Your task to perform on an android device: Play the last video I watched on Youtube Image 0: 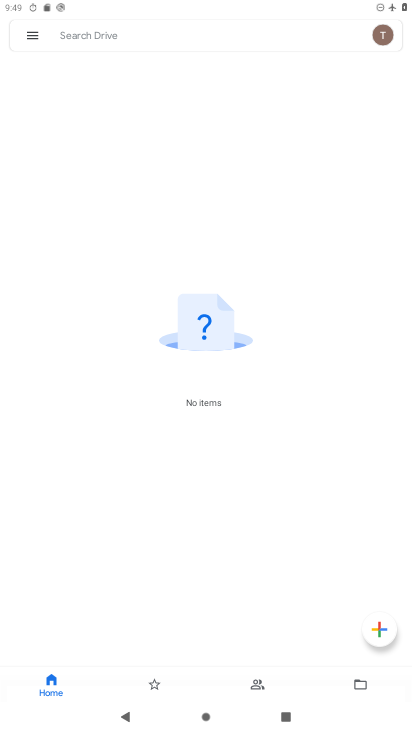
Step 0: drag from (166, 7) to (177, 534)
Your task to perform on an android device: Play the last video I watched on Youtube Image 1: 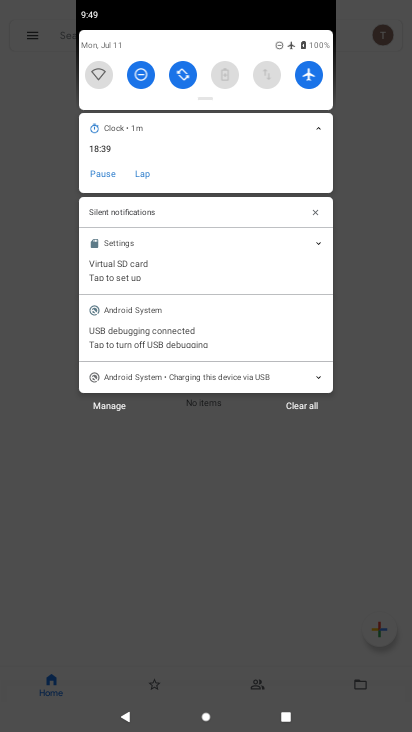
Step 1: press home button
Your task to perform on an android device: Play the last video I watched on Youtube Image 2: 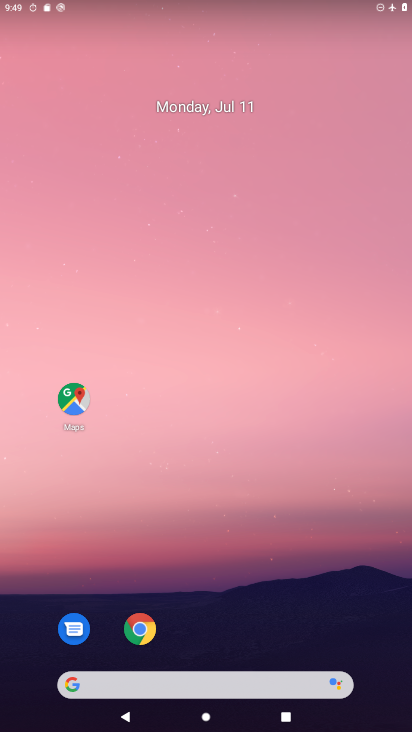
Step 2: drag from (221, 648) to (270, 112)
Your task to perform on an android device: Play the last video I watched on Youtube Image 3: 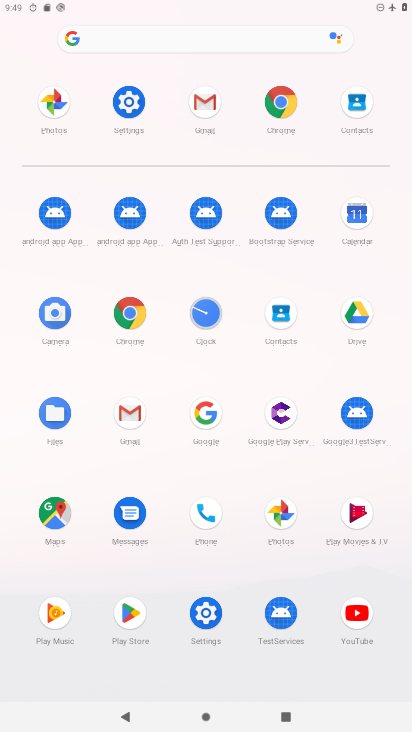
Step 3: click (366, 611)
Your task to perform on an android device: Play the last video I watched on Youtube Image 4: 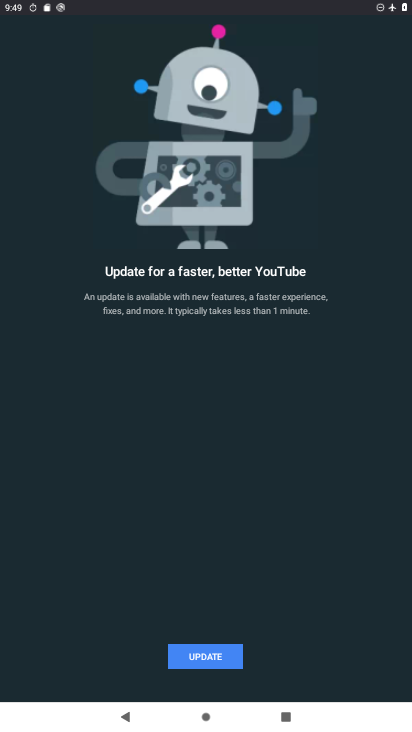
Step 4: click (235, 653)
Your task to perform on an android device: Play the last video I watched on Youtube Image 5: 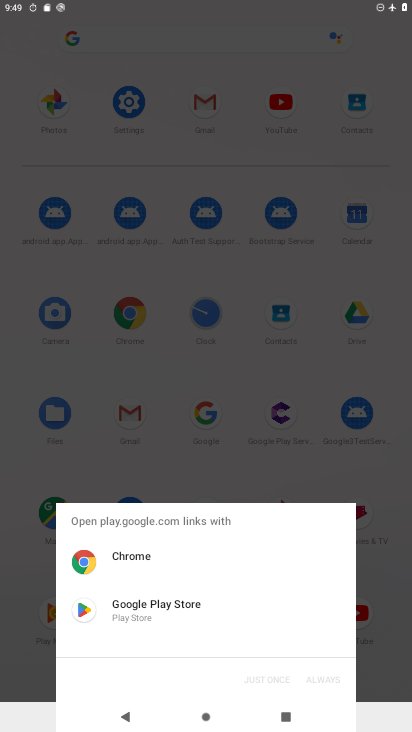
Step 5: click (182, 615)
Your task to perform on an android device: Play the last video I watched on Youtube Image 6: 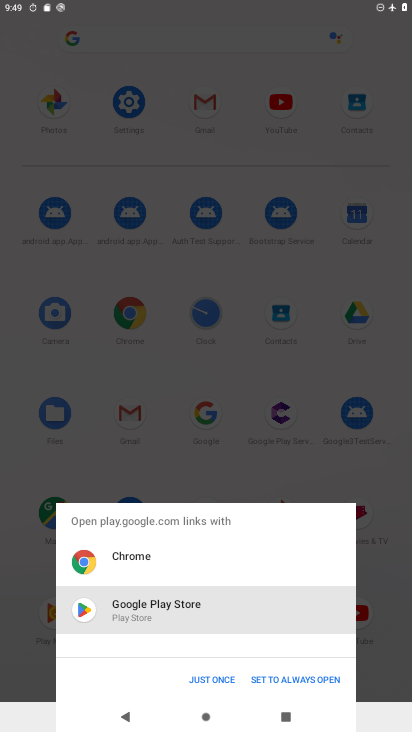
Step 6: click (218, 684)
Your task to perform on an android device: Play the last video I watched on Youtube Image 7: 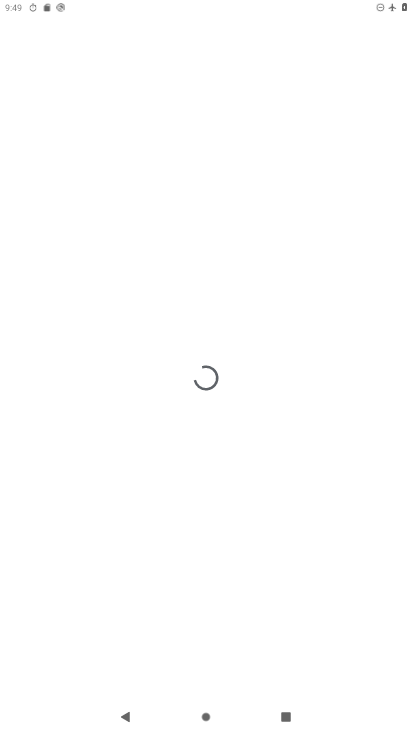
Step 7: drag from (197, 3) to (237, 598)
Your task to perform on an android device: Play the last video I watched on Youtube Image 8: 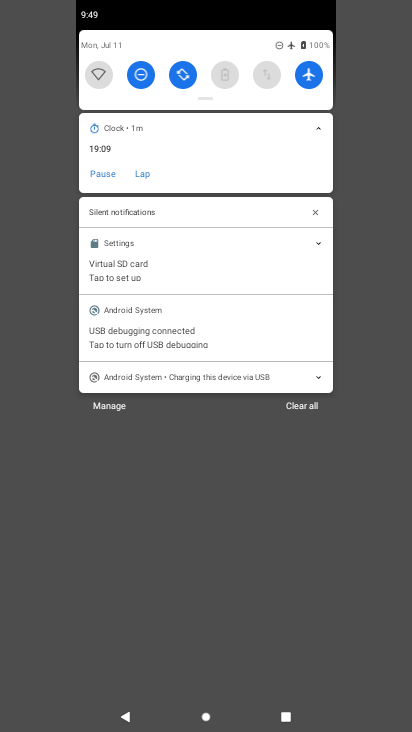
Step 8: click (318, 63)
Your task to perform on an android device: Play the last video I watched on Youtube Image 9: 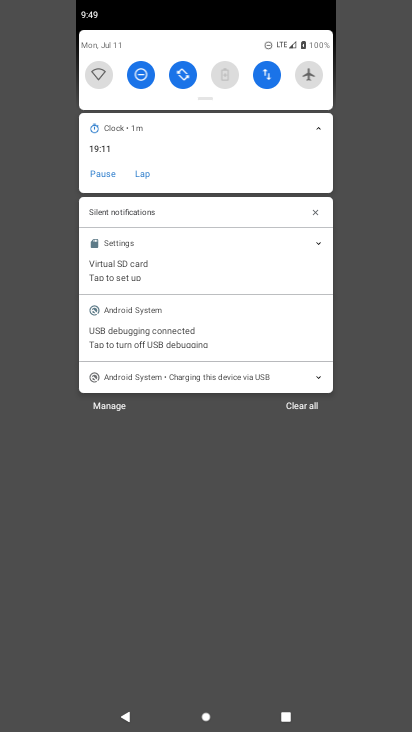
Step 9: task complete